Your task to perform on an android device: Open display settings Image 0: 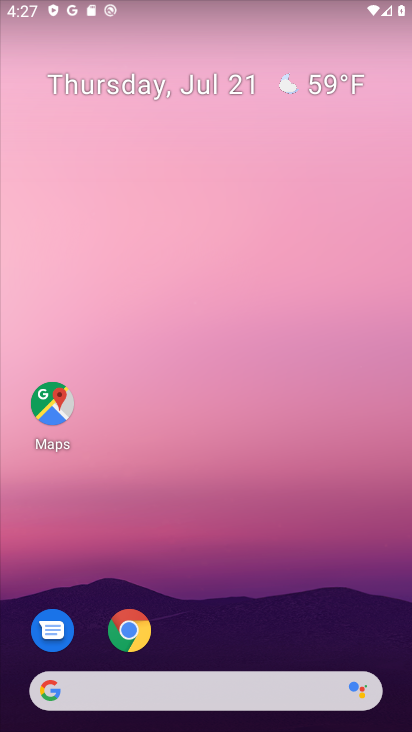
Step 0: drag from (326, 648) to (305, 106)
Your task to perform on an android device: Open display settings Image 1: 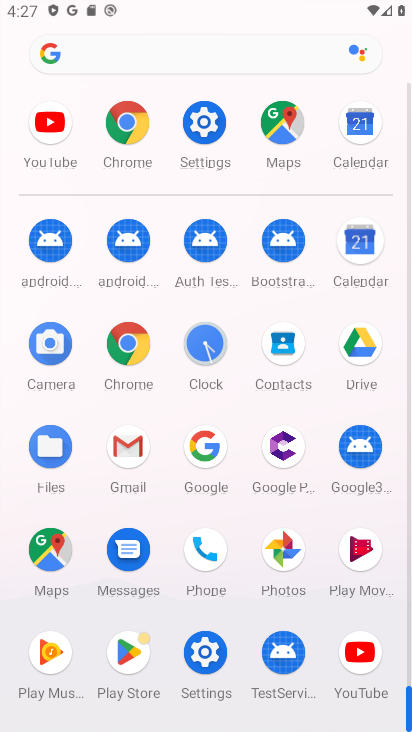
Step 1: click (213, 120)
Your task to perform on an android device: Open display settings Image 2: 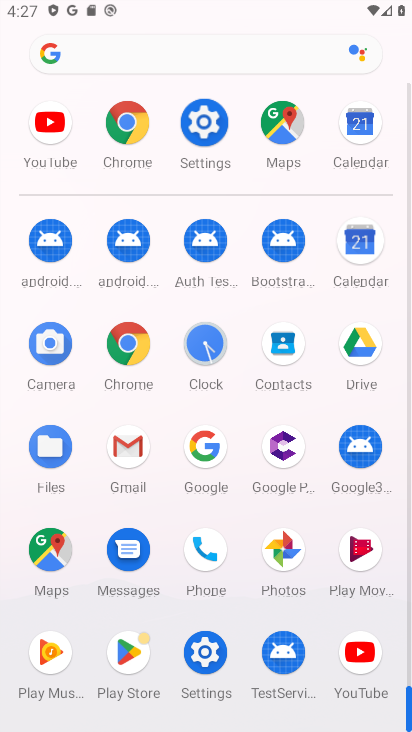
Step 2: click (217, 124)
Your task to perform on an android device: Open display settings Image 3: 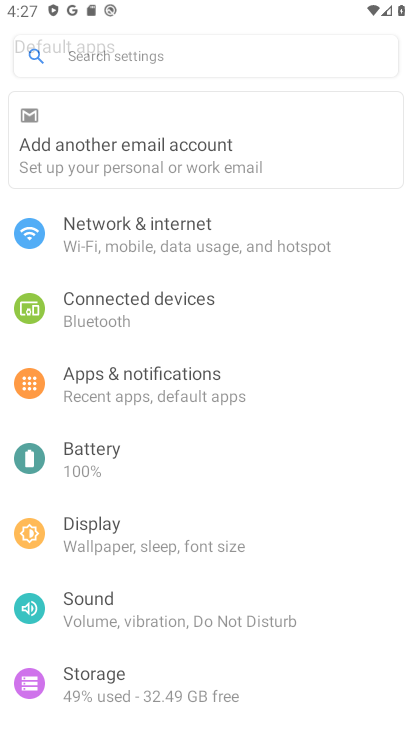
Step 3: click (211, 133)
Your task to perform on an android device: Open display settings Image 4: 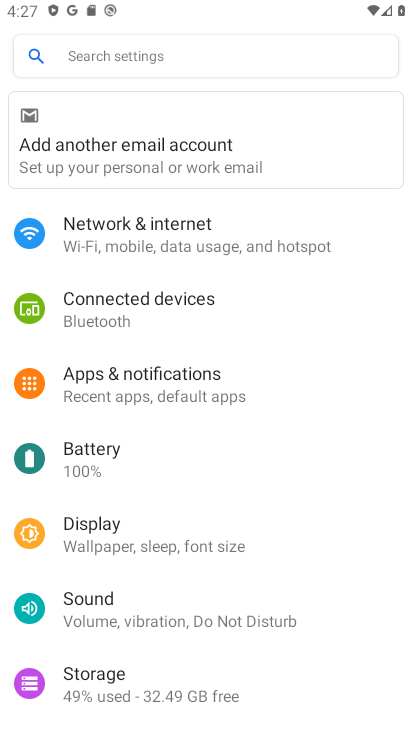
Step 4: click (105, 518)
Your task to perform on an android device: Open display settings Image 5: 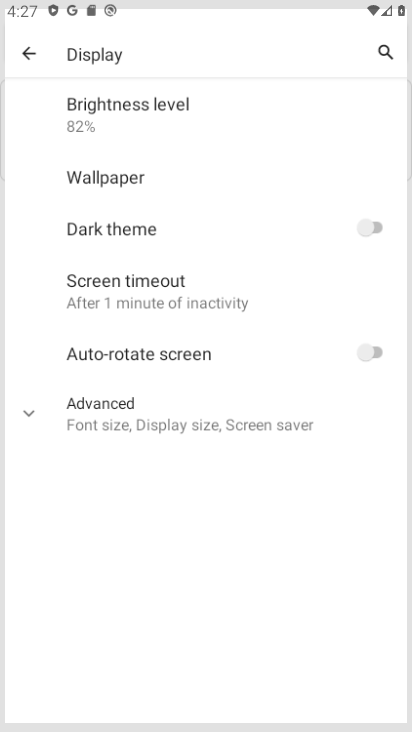
Step 5: click (89, 532)
Your task to perform on an android device: Open display settings Image 6: 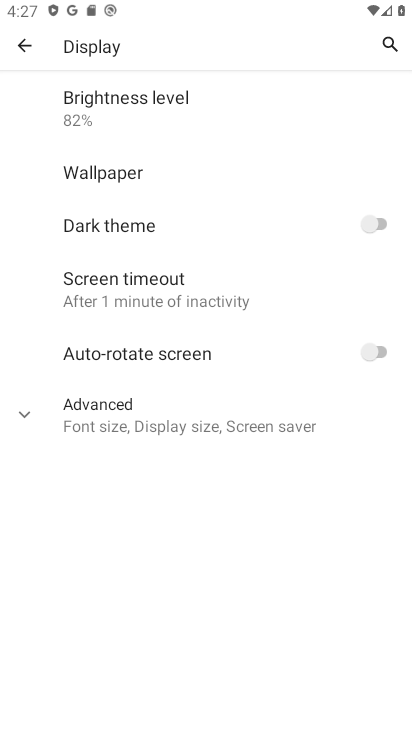
Step 6: click (86, 529)
Your task to perform on an android device: Open display settings Image 7: 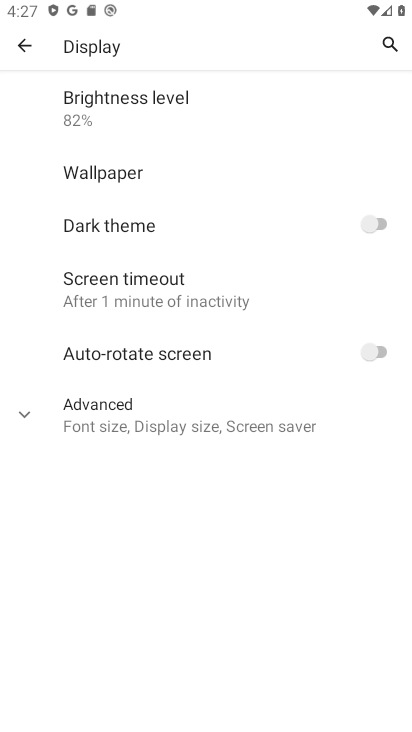
Step 7: task complete